Your task to perform on an android device: all mails in gmail Image 0: 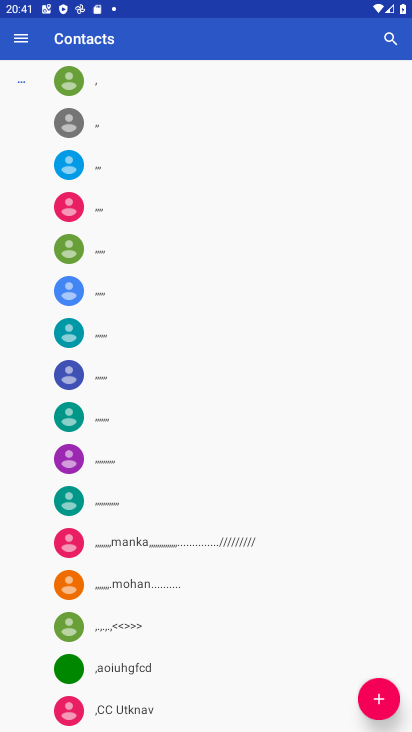
Step 0: press home button
Your task to perform on an android device: all mails in gmail Image 1: 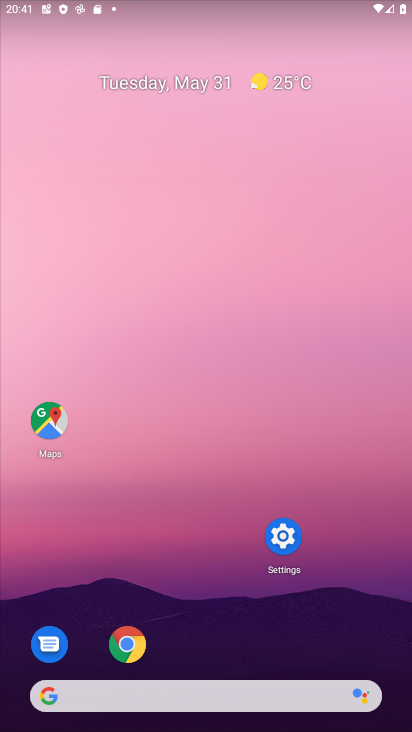
Step 1: drag from (217, 720) to (246, 243)
Your task to perform on an android device: all mails in gmail Image 2: 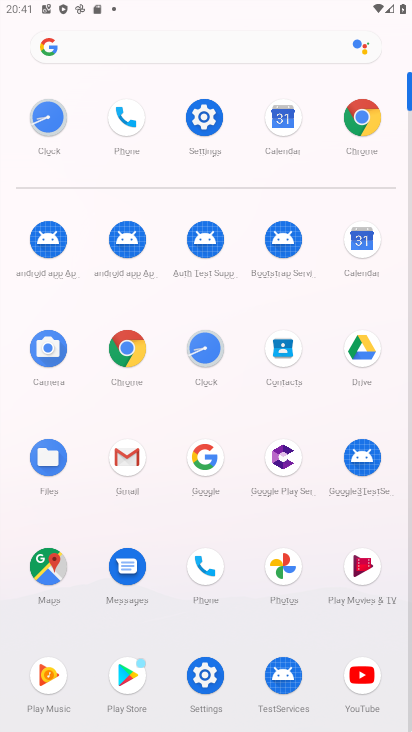
Step 2: click (135, 459)
Your task to perform on an android device: all mails in gmail Image 3: 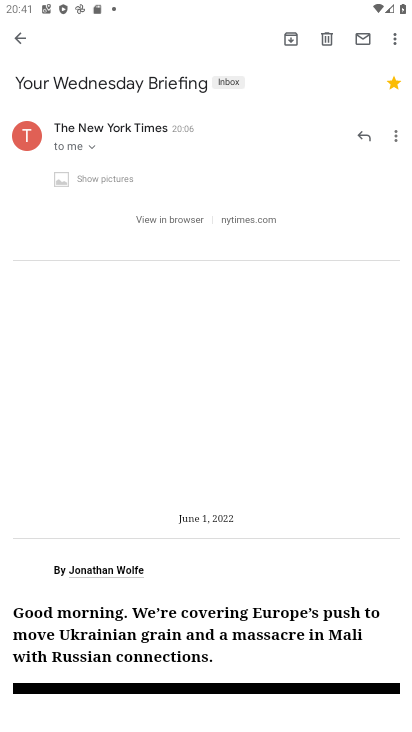
Step 3: click (21, 43)
Your task to perform on an android device: all mails in gmail Image 4: 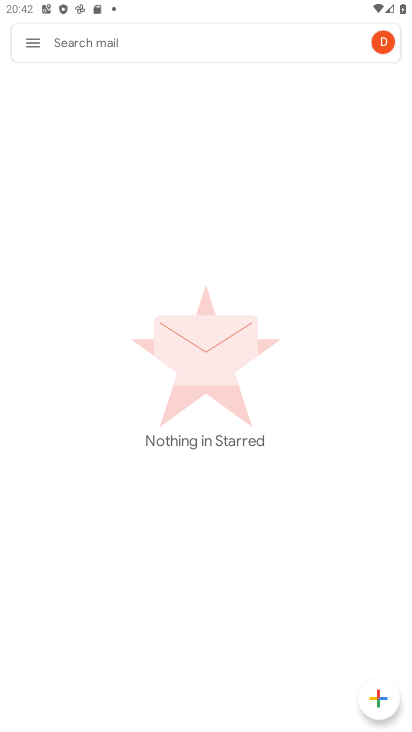
Step 4: click (38, 39)
Your task to perform on an android device: all mails in gmail Image 5: 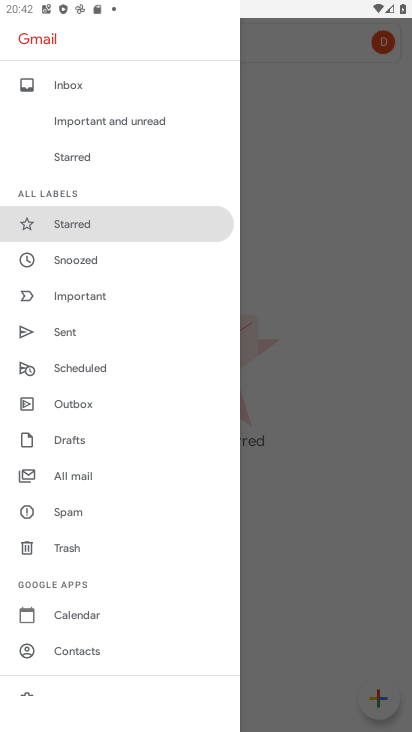
Step 5: click (79, 476)
Your task to perform on an android device: all mails in gmail Image 6: 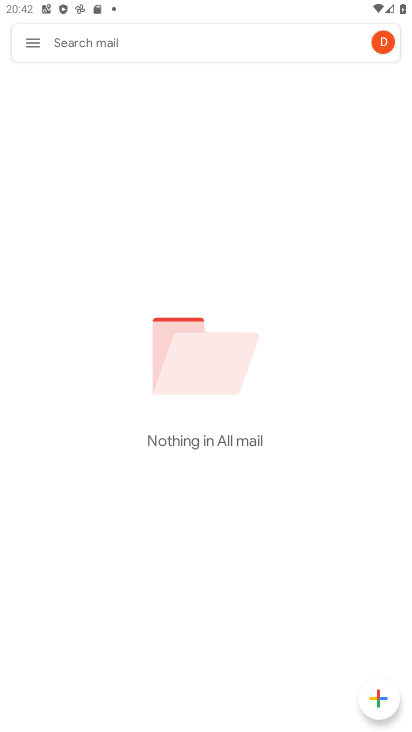
Step 6: task complete